Your task to perform on an android device: turn smart compose on in the gmail app Image 0: 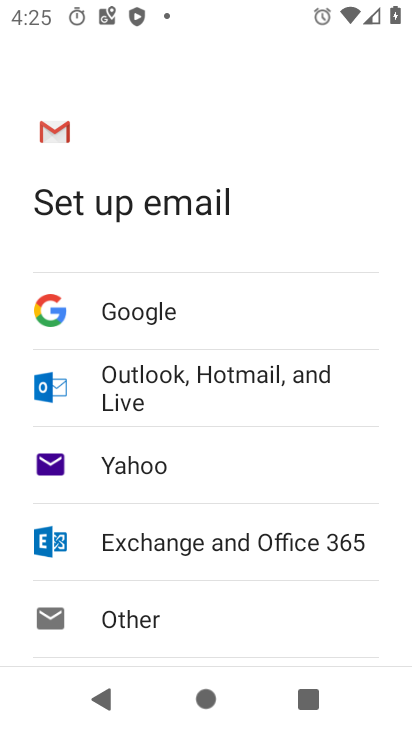
Step 0: press back button
Your task to perform on an android device: turn smart compose on in the gmail app Image 1: 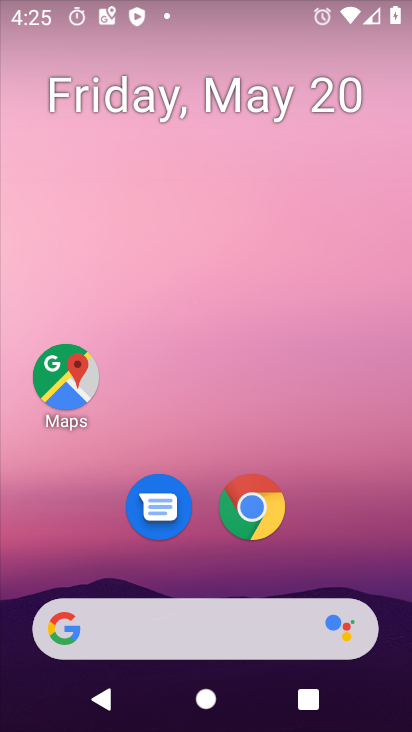
Step 1: drag from (309, 549) to (177, 168)
Your task to perform on an android device: turn smart compose on in the gmail app Image 2: 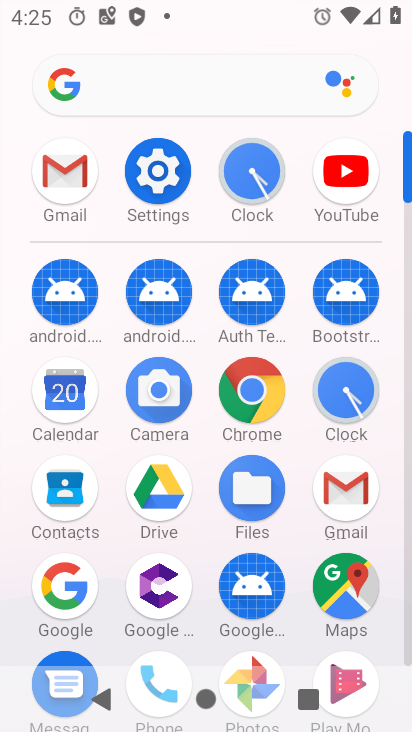
Step 2: click (63, 168)
Your task to perform on an android device: turn smart compose on in the gmail app Image 3: 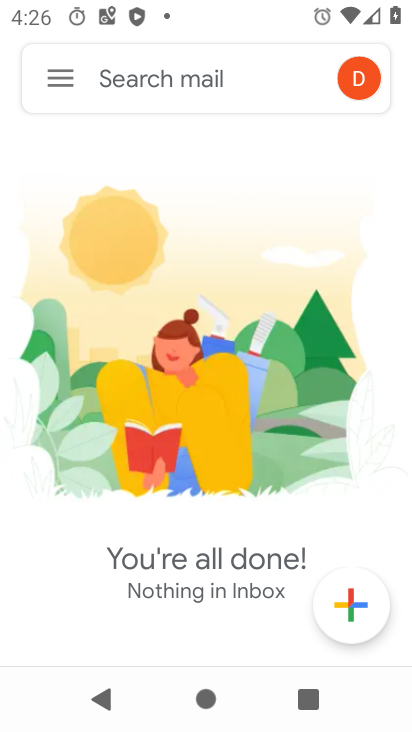
Step 3: click (65, 82)
Your task to perform on an android device: turn smart compose on in the gmail app Image 4: 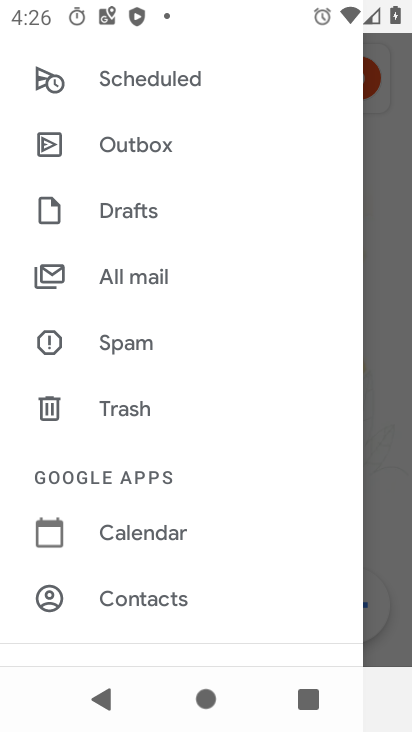
Step 4: drag from (195, 499) to (161, 356)
Your task to perform on an android device: turn smart compose on in the gmail app Image 5: 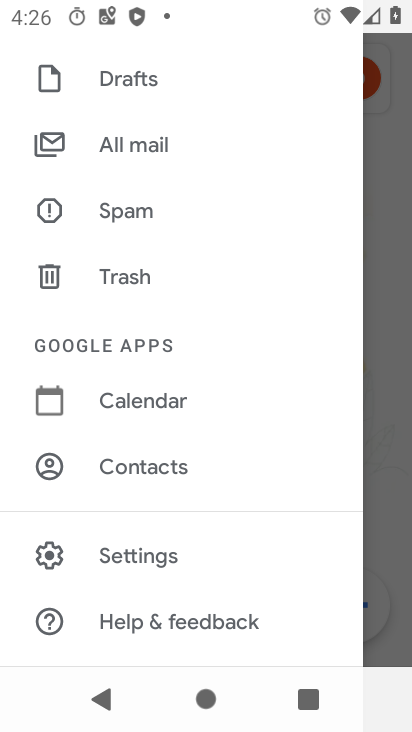
Step 5: click (131, 560)
Your task to perform on an android device: turn smart compose on in the gmail app Image 6: 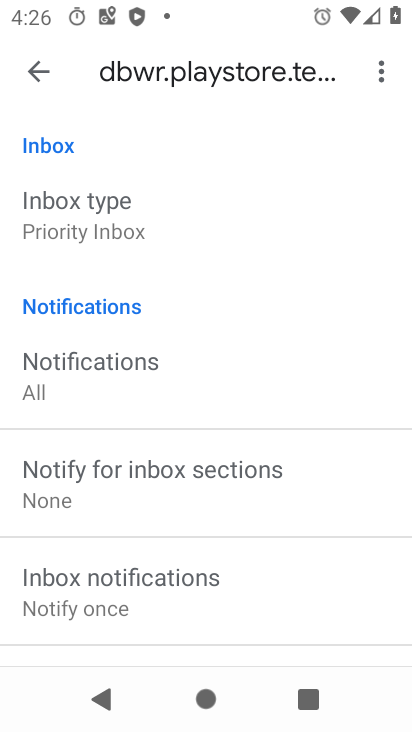
Step 6: task complete